Your task to perform on an android device: allow cookies in the chrome app Image 0: 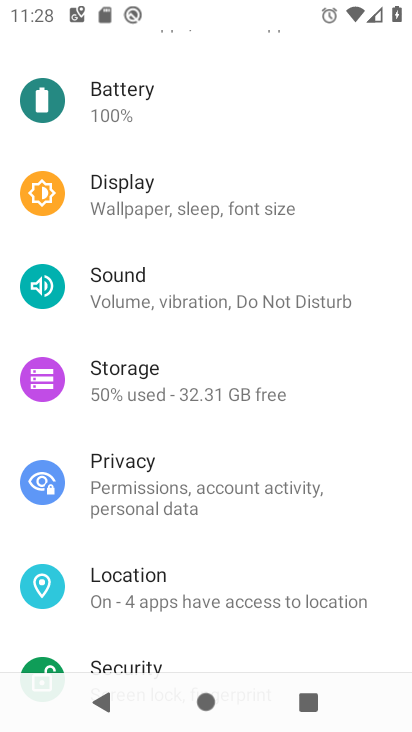
Step 0: press home button
Your task to perform on an android device: allow cookies in the chrome app Image 1: 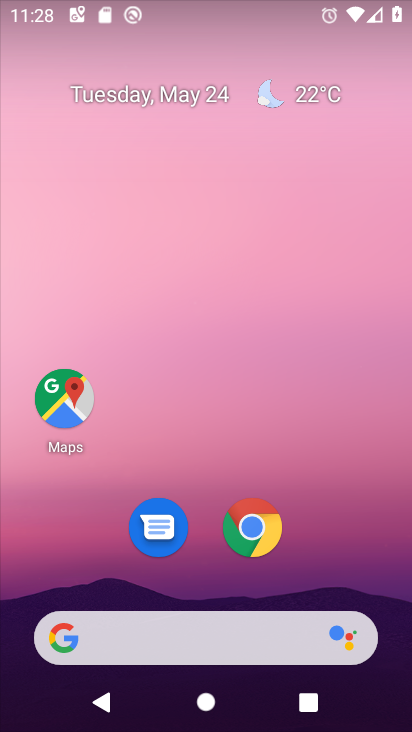
Step 1: click (261, 538)
Your task to perform on an android device: allow cookies in the chrome app Image 2: 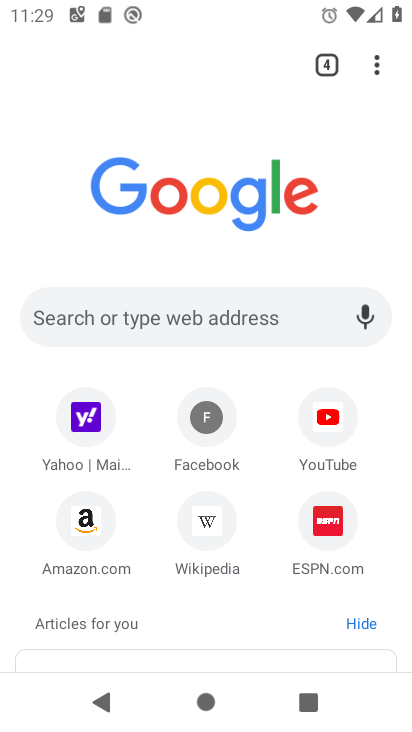
Step 2: drag from (384, 63) to (190, 544)
Your task to perform on an android device: allow cookies in the chrome app Image 3: 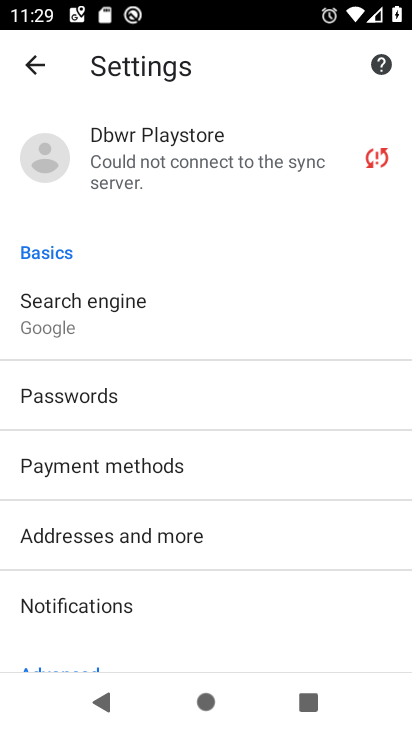
Step 3: drag from (185, 597) to (280, 267)
Your task to perform on an android device: allow cookies in the chrome app Image 4: 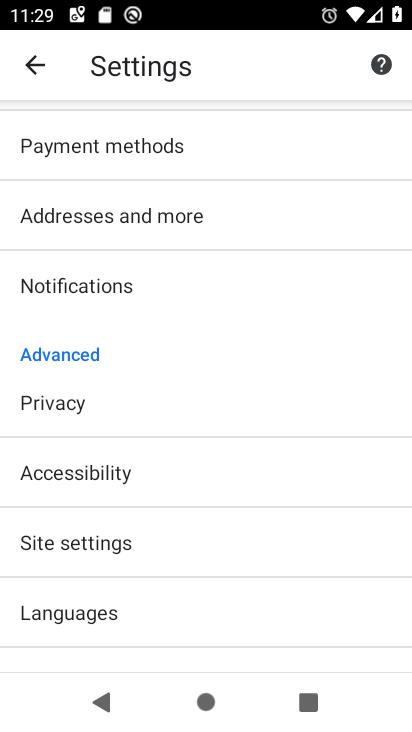
Step 4: click (139, 545)
Your task to perform on an android device: allow cookies in the chrome app Image 5: 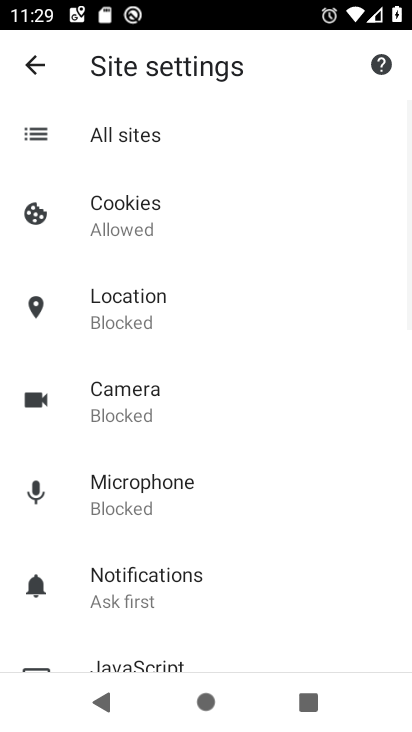
Step 5: click (136, 207)
Your task to perform on an android device: allow cookies in the chrome app Image 6: 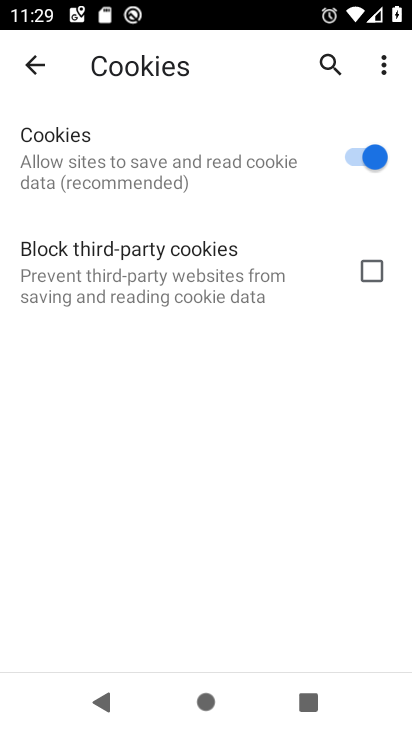
Step 6: task complete